Your task to perform on an android device: Search for sushi restaurants on Maps Image 0: 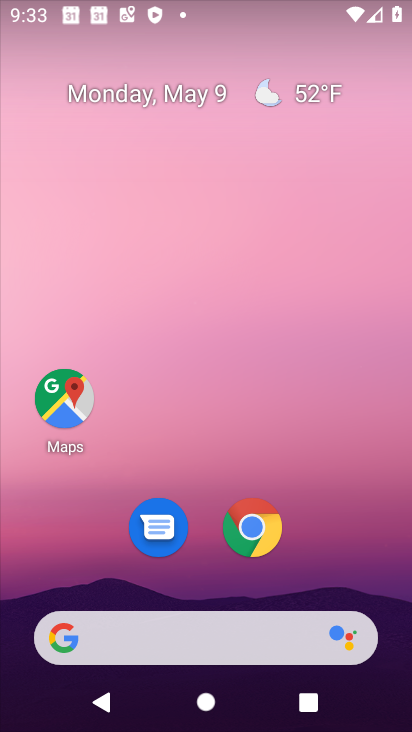
Step 0: click (77, 408)
Your task to perform on an android device: Search for sushi restaurants on Maps Image 1: 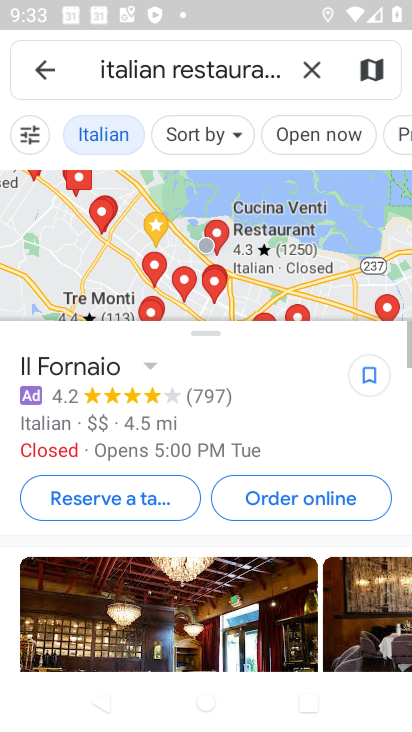
Step 1: click (317, 79)
Your task to perform on an android device: Search for sushi restaurants on Maps Image 2: 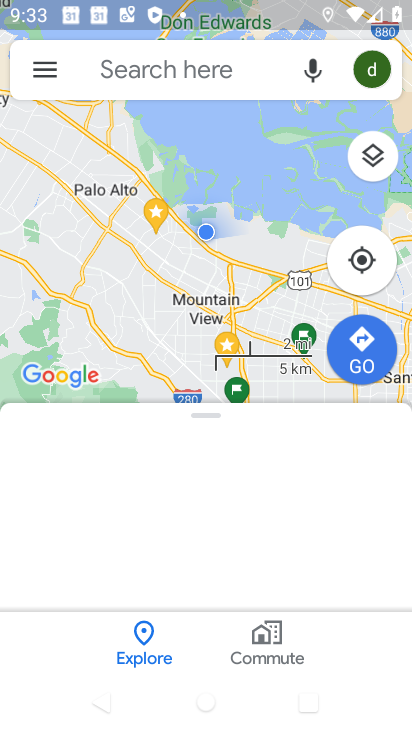
Step 2: click (141, 72)
Your task to perform on an android device: Search for sushi restaurants on Maps Image 3: 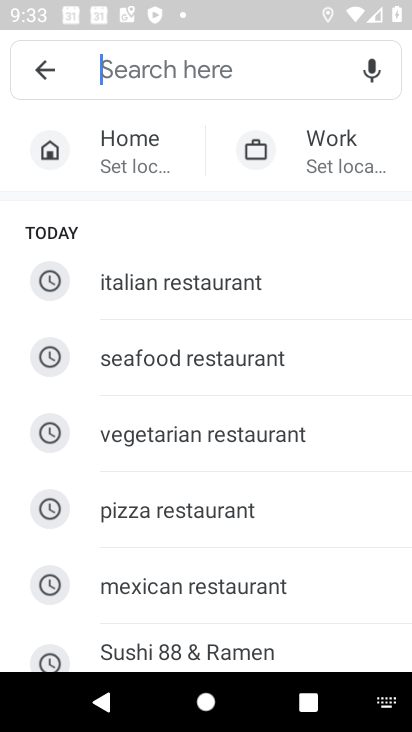
Step 3: drag from (170, 611) to (202, 243)
Your task to perform on an android device: Search for sushi restaurants on Maps Image 4: 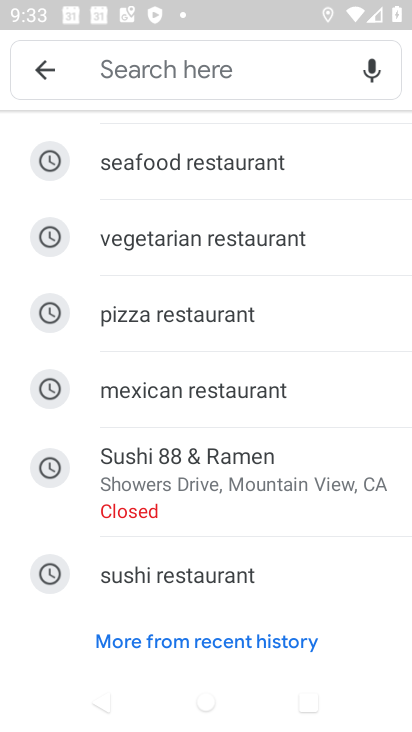
Step 4: click (212, 577)
Your task to perform on an android device: Search for sushi restaurants on Maps Image 5: 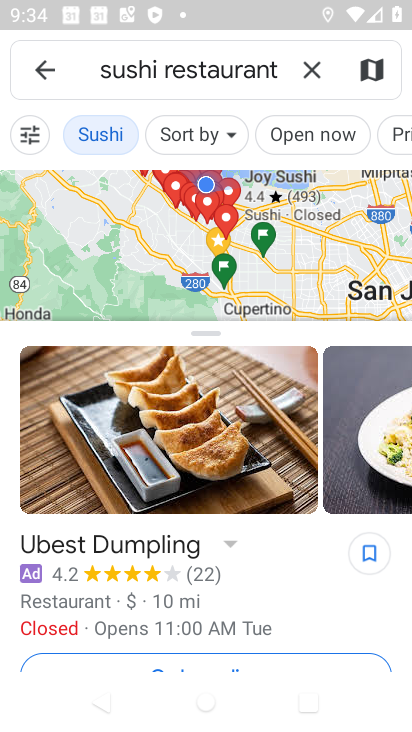
Step 5: task complete